Your task to perform on an android device: Open internet settings Image 0: 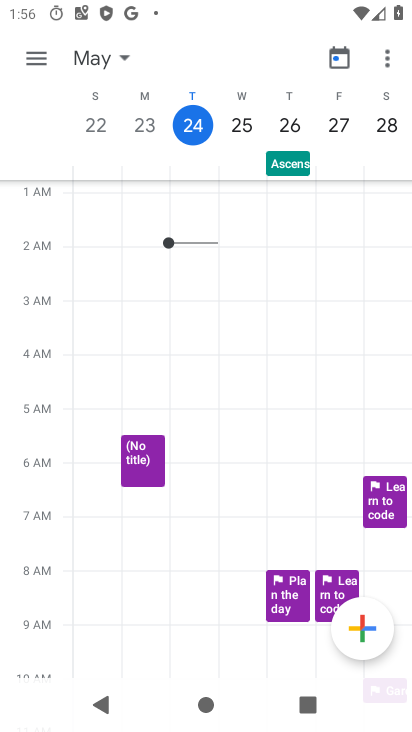
Step 0: press home button
Your task to perform on an android device: Open internet settings Image 1: 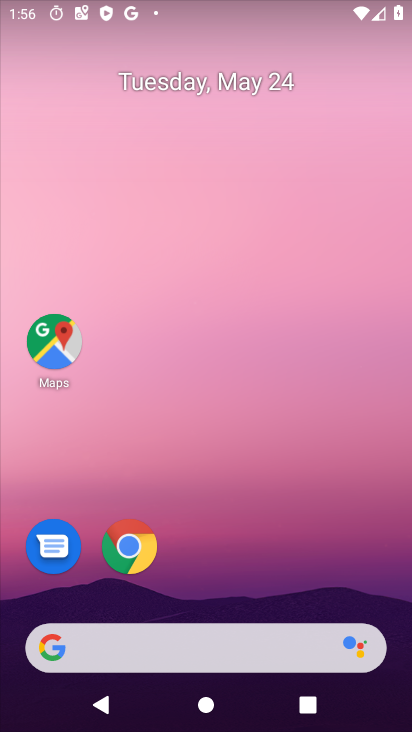
Step 1: drag from (210, 650) to (190, 121)
Your task to perform on an android device: Open internet settings Image 2: 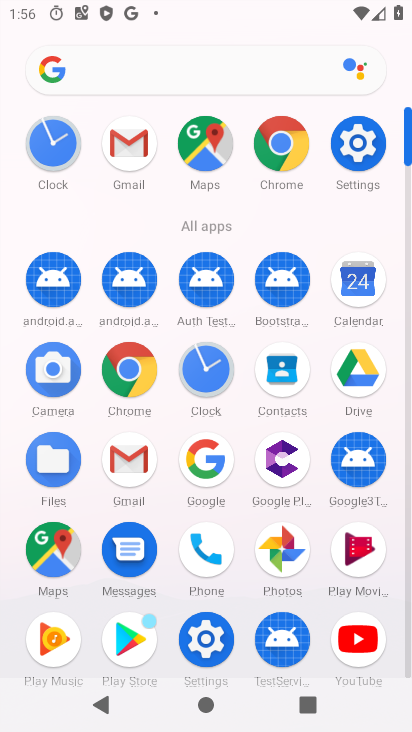
Step 2: click (360, 147)
Your task to perform on an android device: Open internet settings Image 3: 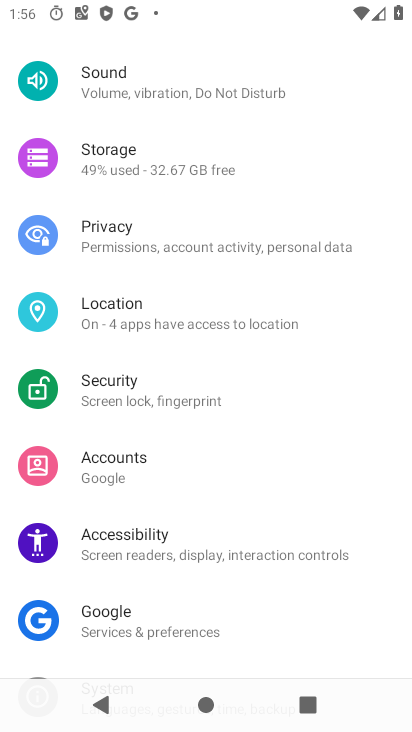
Step 3: drag from (118, 118) to (166, 464)
Your task to perform on an android device: Open internet settings Image 4: 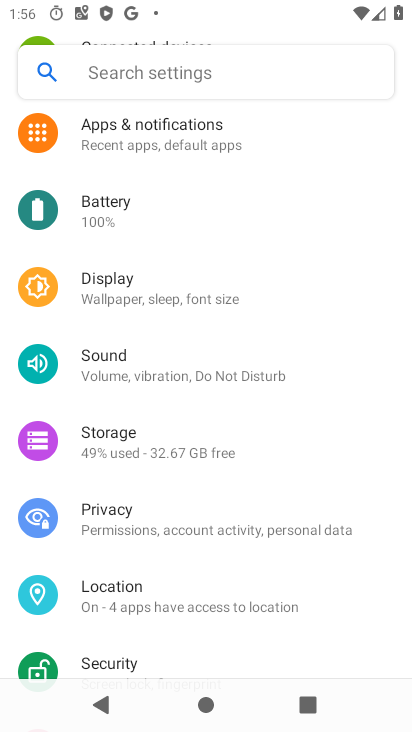
Step 4: drag from (149, 250) to (189, 597)
Your task to perform on an android device: Open internet settings Image 5: 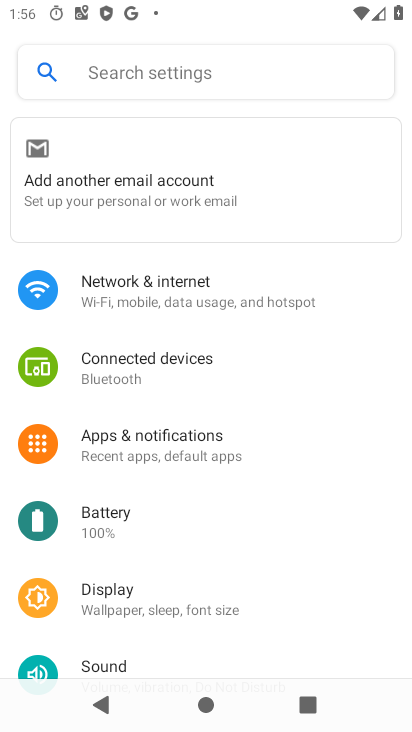
Step 5: drag from (156, 267) to (171, 470)
Your task to perform on an android device: Open internet settings Image 6: 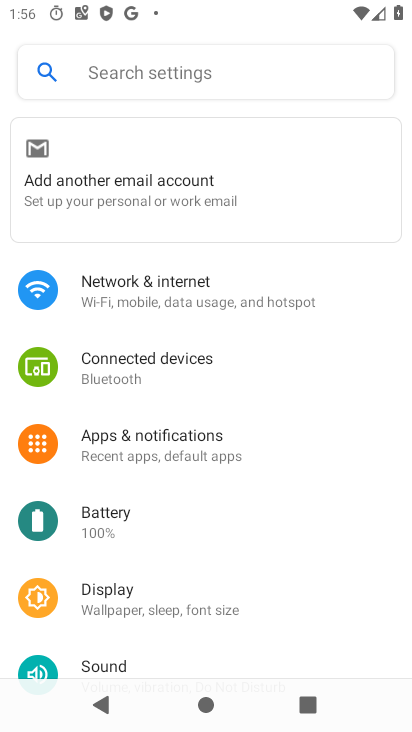
Step 6: click (137, 297)
Your task to perform on an android device: Open internet settings Image 7: 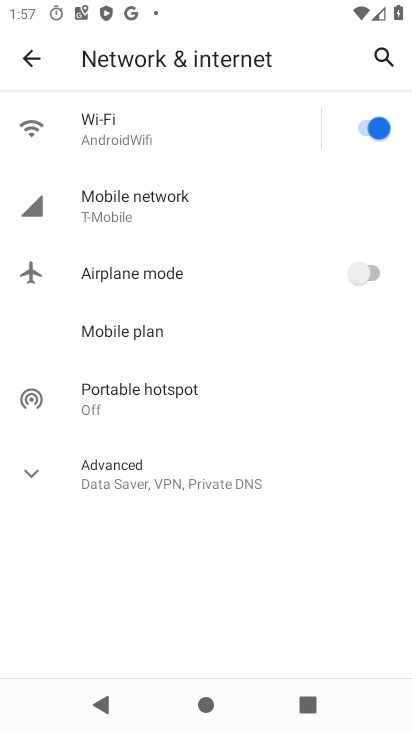
Step 7: task complete